Your task to perform on an android device: turn off javascript in the chrome app Image 0: 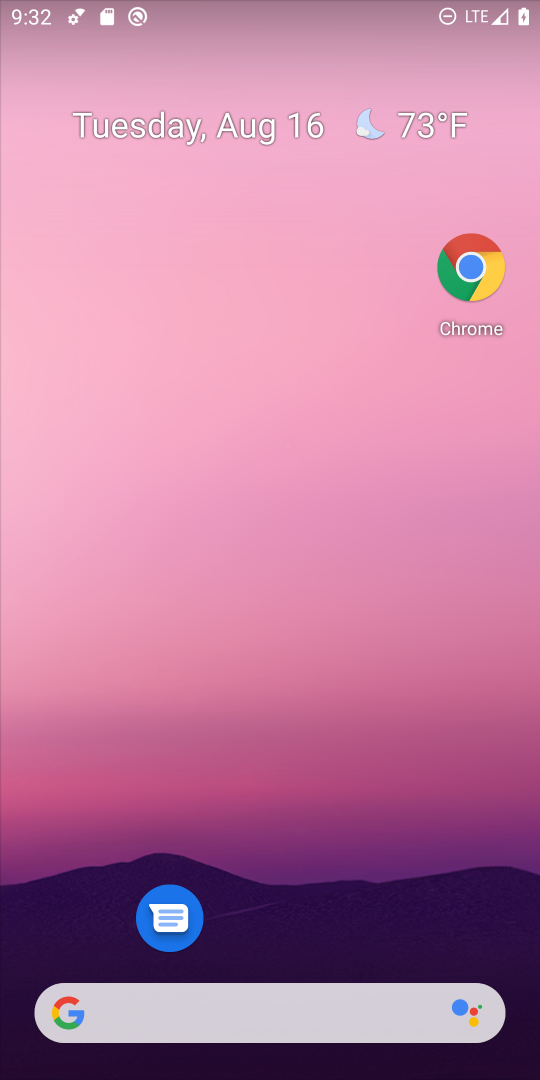
Step 0: drag from (314, 954) to (233, 147)
Your task to perform on an android device: turn off javascript in the chrome app Image 1: 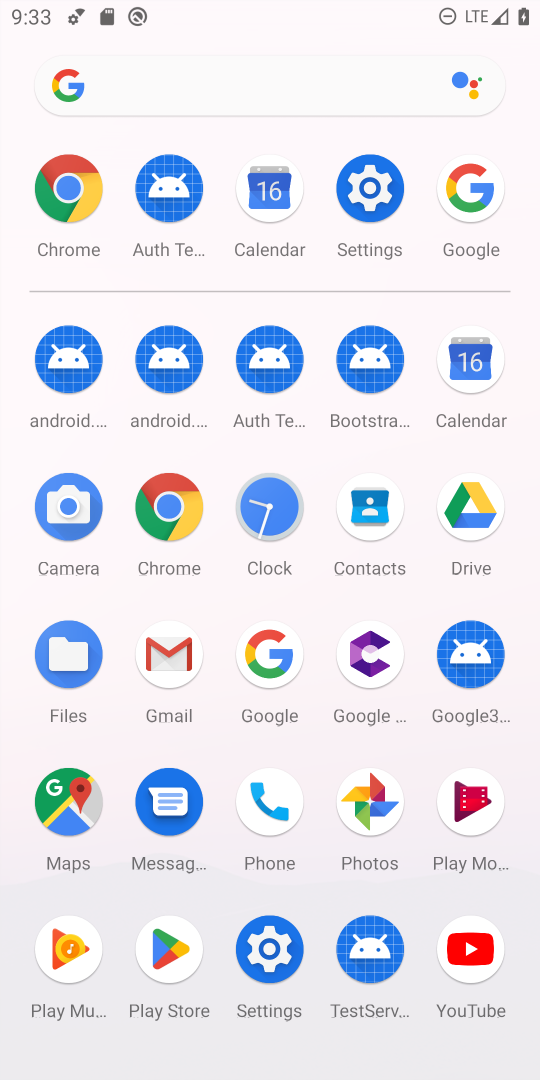
Step 1: click (176, 531)
Your task to perform on an android device: turn off javascript in the chrome app Image 2: 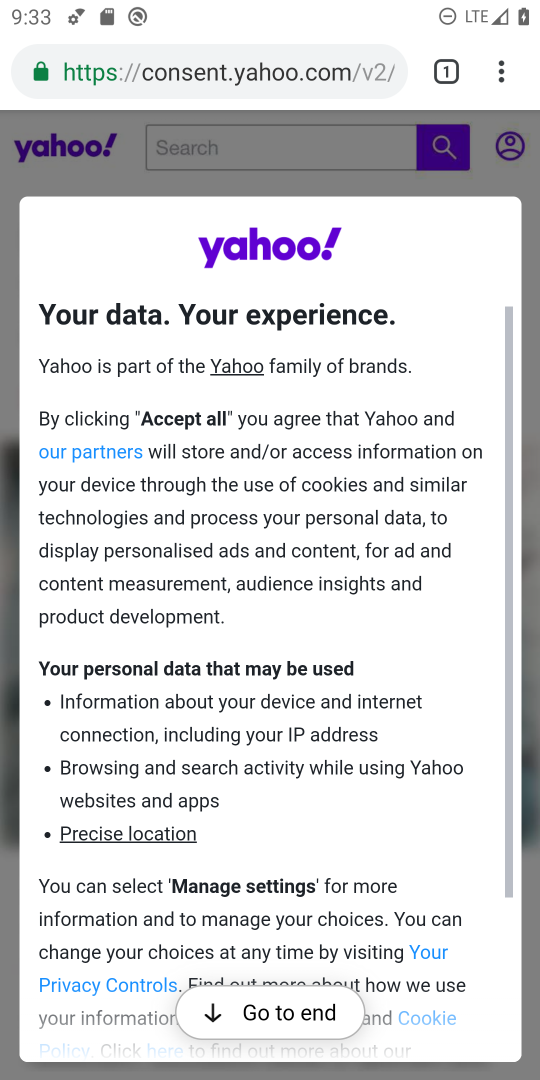
Step 2: click (506, 68)
Your task to perform on an android device: turn off javascript in the chrome app Image 3: 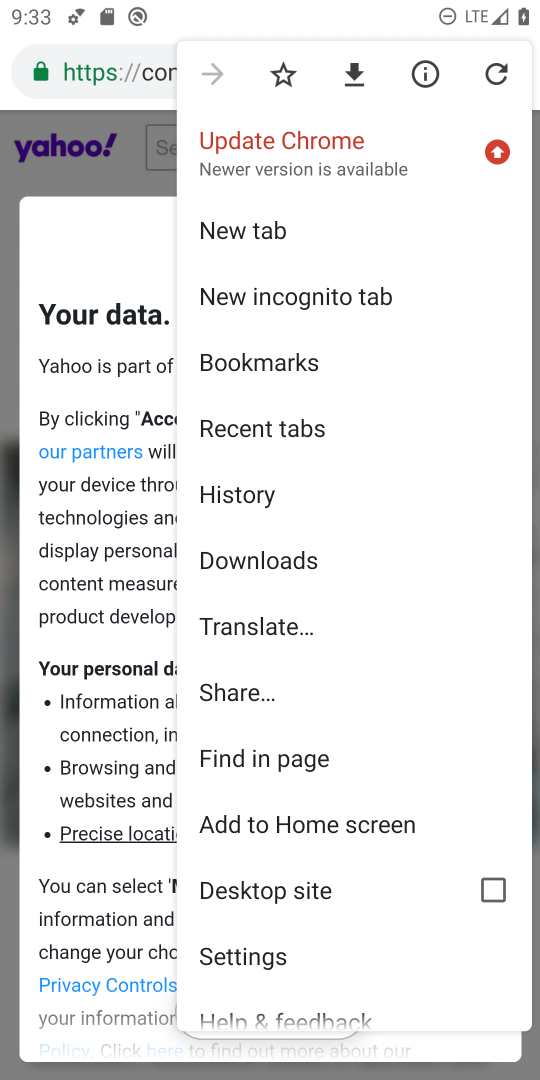
Step 3: click (279, 963)
Your task to perform on an android device: turn off javascript in the chrome app Image 4: 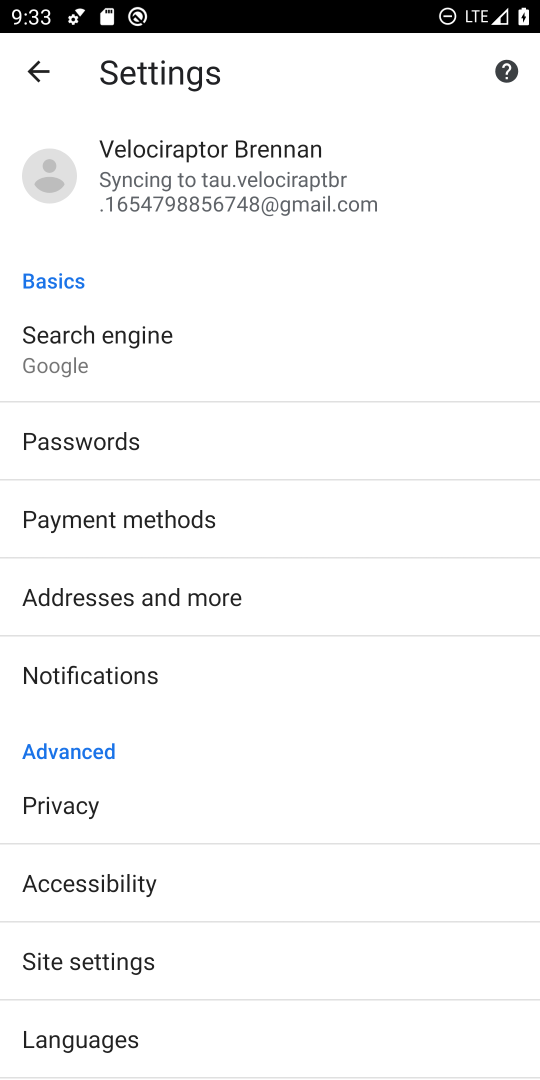
Step 4: click (116, 961)
Your task to perform on an android device: turn off javascript in the chrome app Image 5: 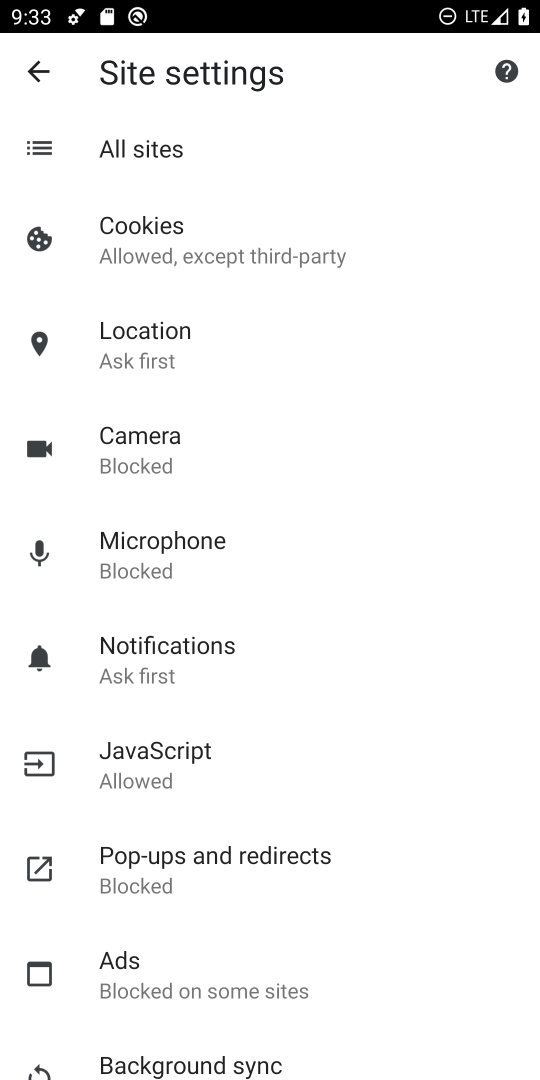
Step 5: click (223, 776)
Your task to perform on an android device: turn off javascript in the chrome app Image 6: 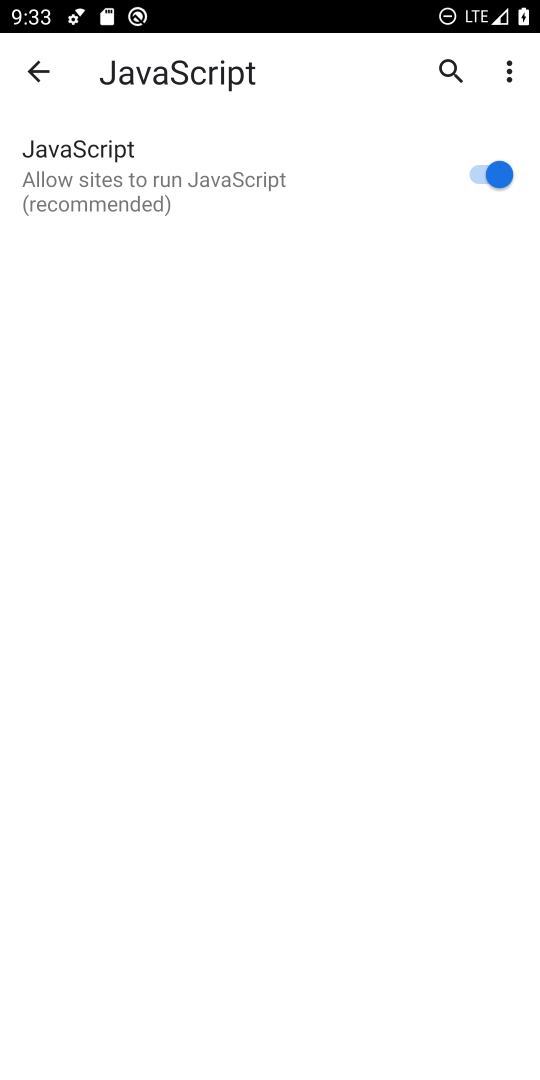
Step 6: click (472, 171)
Your task to perform on an android device: turn off javascript in the chrome app Image 7: 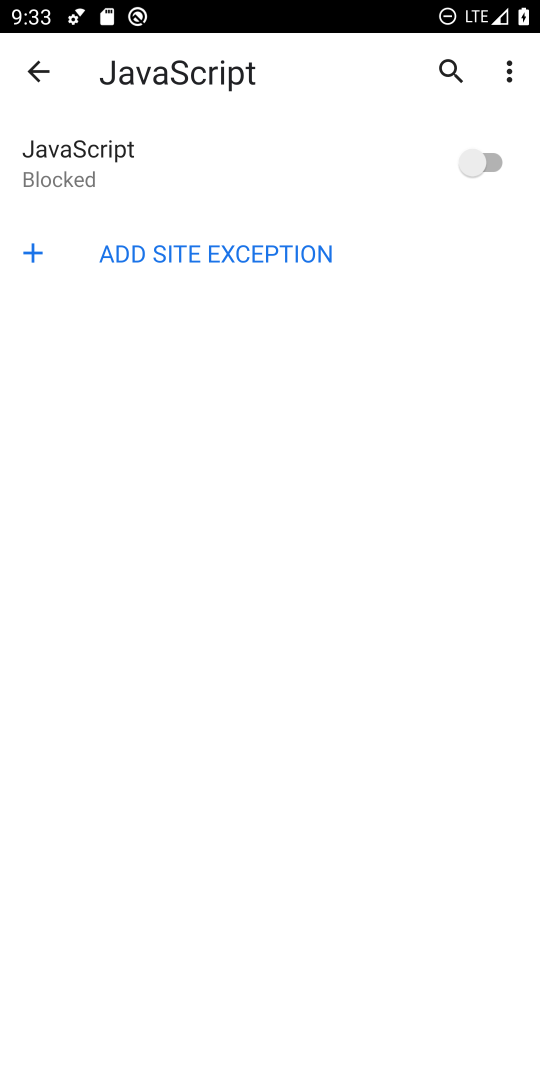
Step 7: task complete